Your task to perform on an android device: Go to wifi settings Image 0: 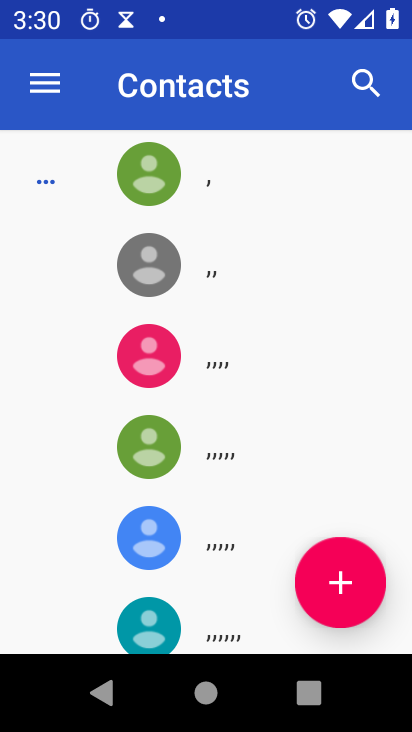
Step 0: press home button
Your task to perform on an android device: Go to wifi settings Image 1: 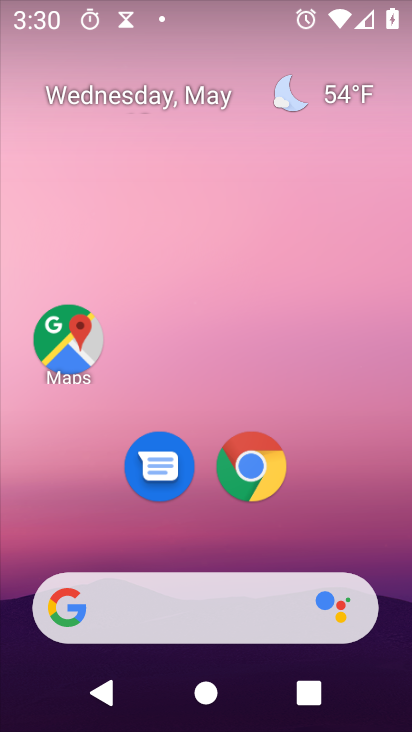
Step 1: drag from (385, 532) to (236, 70)
Your task to perform on an android device: Go to wifi settings Image 2: 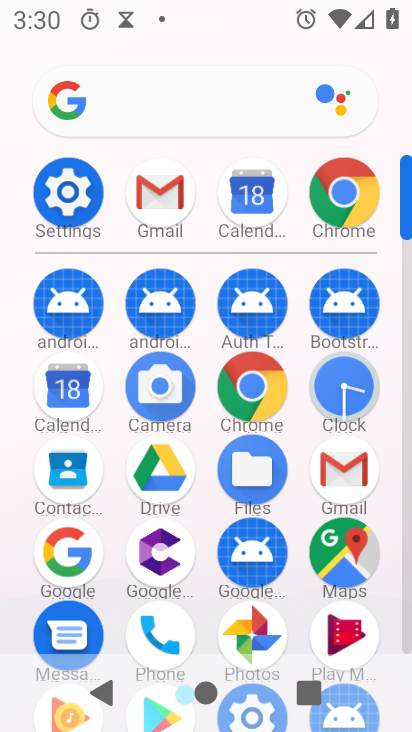
Step 2: click (77, 187)
Your task to perform on an android device: Go to wifi settings Image 3: 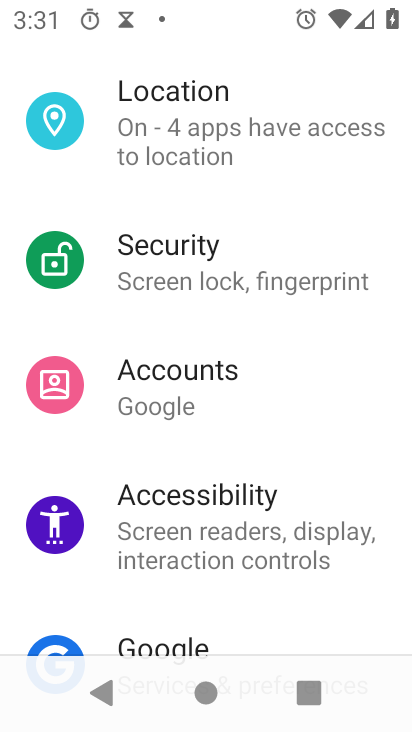
Step 3: drag from (225, 131) to (230, 681)
Your task to perform on an android device: Go to wifi settings Image 4: 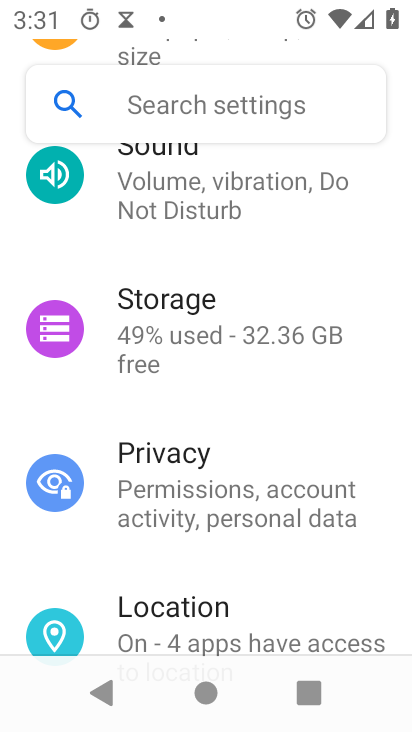
Step 4: drag from (275, 234) to (259, 658)
Your task to perform on an android device: Go to wifi settings Image 5: 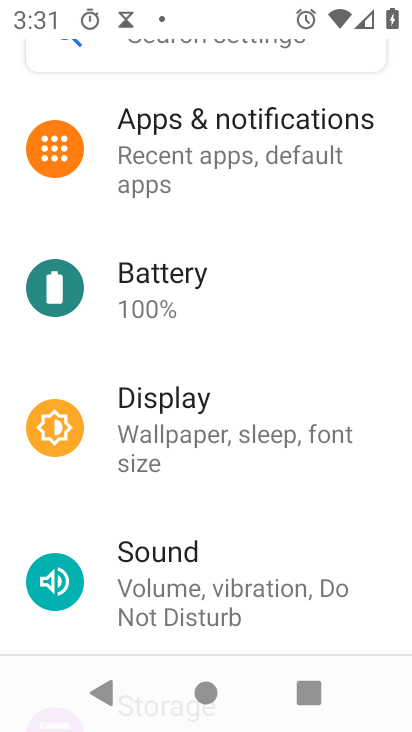
Step 5: drag from (261, 310) to (246, 707)
Your task to perform on an android device: Go to wifi settings Image 6: 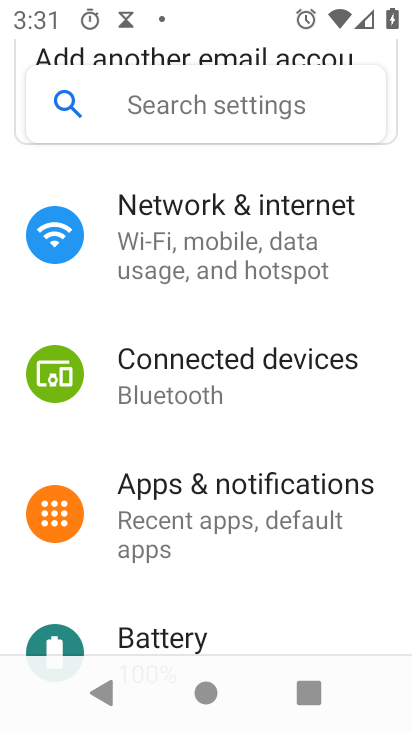
Step 6: click (246, 273)
Your task to perform on an android device: Go to wifi settings Image 7: 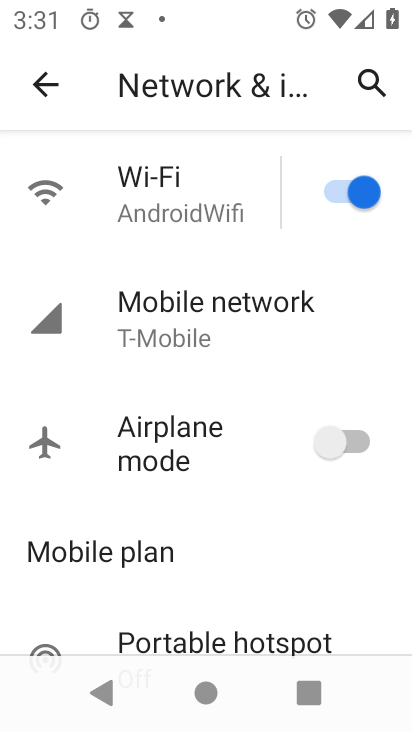
Step 7: click (233, 226)
Your task to perform on an android device: Go to wifi settings Image 8: 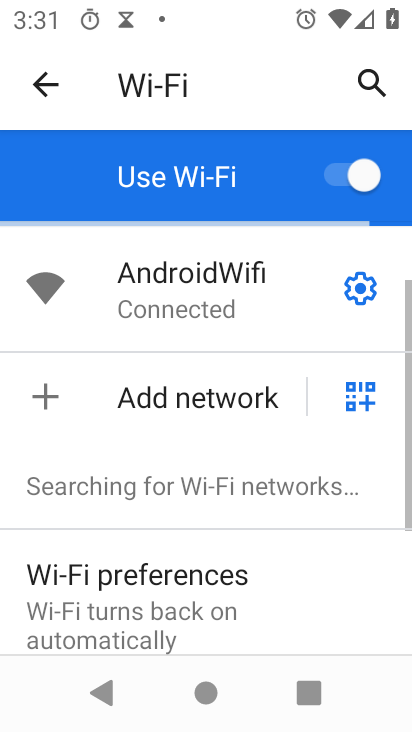
Step 8: task complete